Your task to perform on an android device: turn on the 24-hour format for clock Image 0: 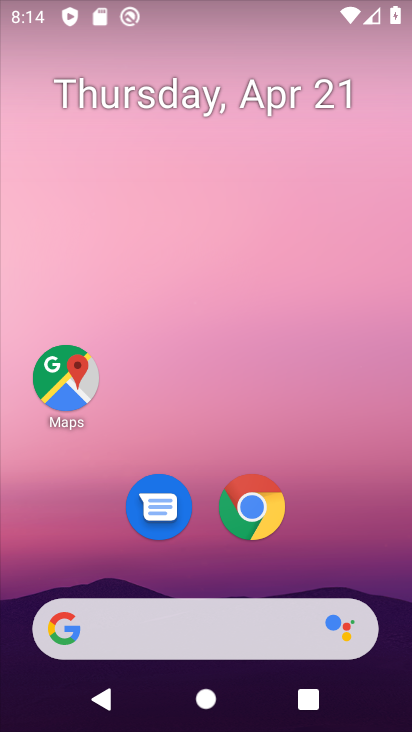
Step 0: drag from (190, 509) to (241, 85)
Your task to perform on an android device: turn on the 24-hour format for clock Image 1: 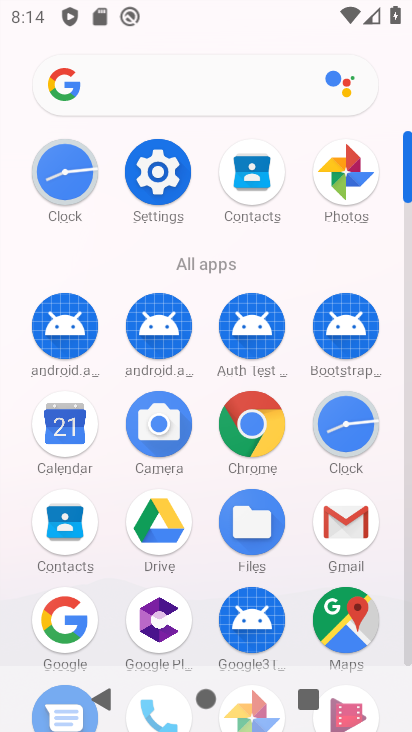
Step 1: click (337, 412)
Your task to perform on an android device: turn on the 24-hour format for clock Image 2: 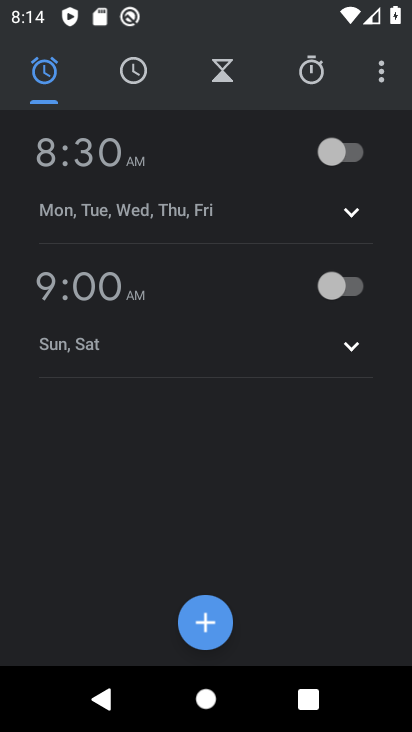
Step 2: click (381, 77)
Your task to perform on an android device: turn on the 24-hour format for clock Image 3: 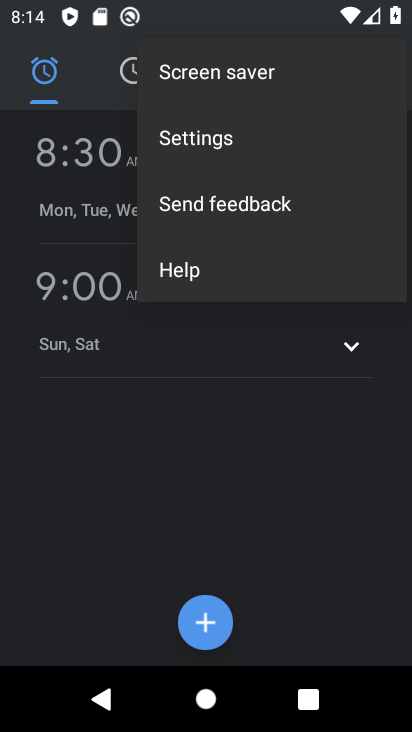
Step 3: click (206, 135)
Your task to perform on an android device: turn on the 24-hour format for clock Image 4: 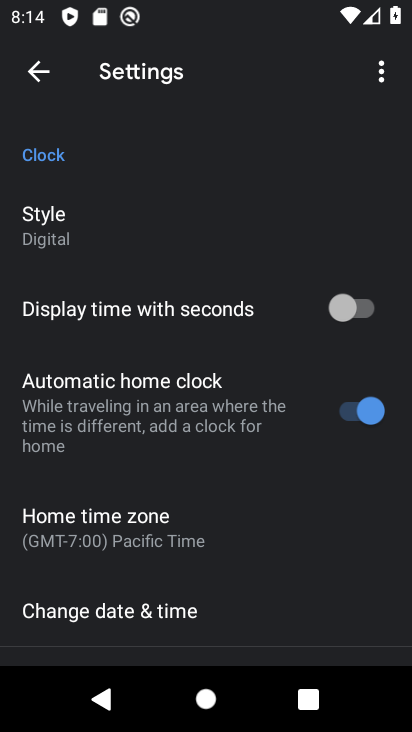
Step 4: drag from (186, 562) to (229, 232)
Your task to perform on an android device: turn on the 24-hour format for clock Image 5: 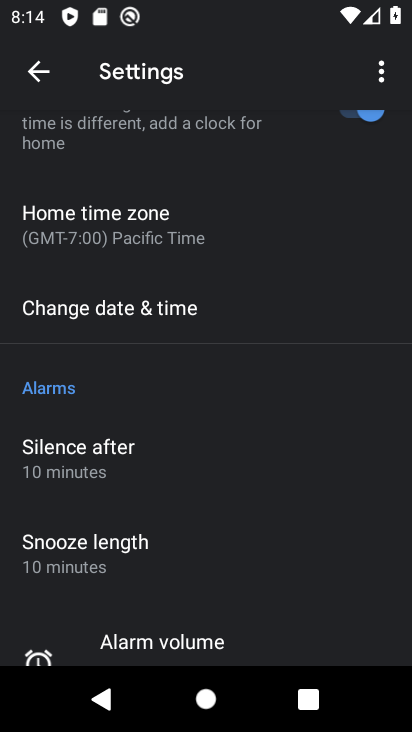
Step 5: click (149, 309)
Your task to perform on an android device: turn on the 24-hour format for clock Image 6: 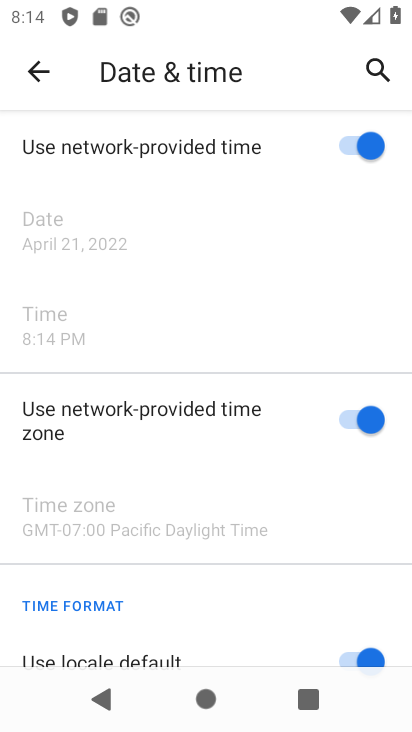
Step 6: drag from (175, 612) to (253, 109)
Your task to perform on an android device: turn on the 24-hour format for clock Image 7: 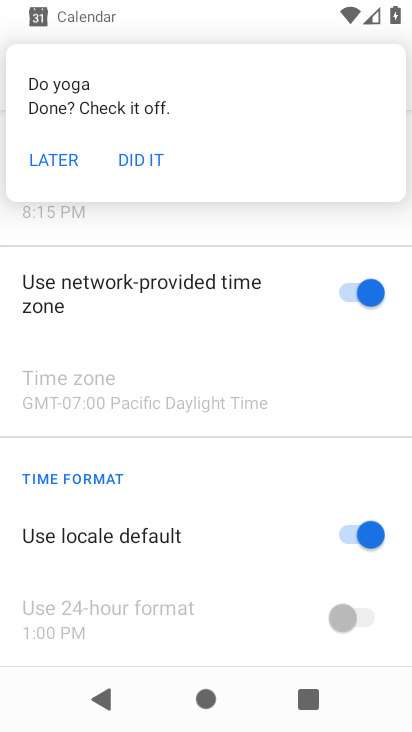
Step 7: click (363, 533)
Your task to perform on an android device: turn on the 24-hour format for clock Image 8: 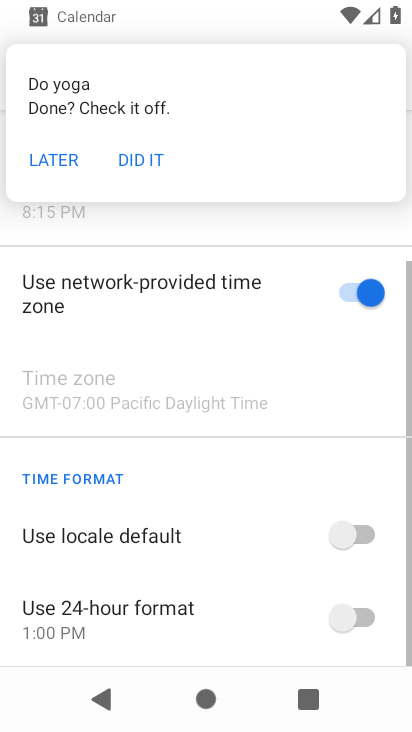
Step 8: click (347, 617)
Your task to perform on an android device: turn on the 24-hour format for clock Image 9: 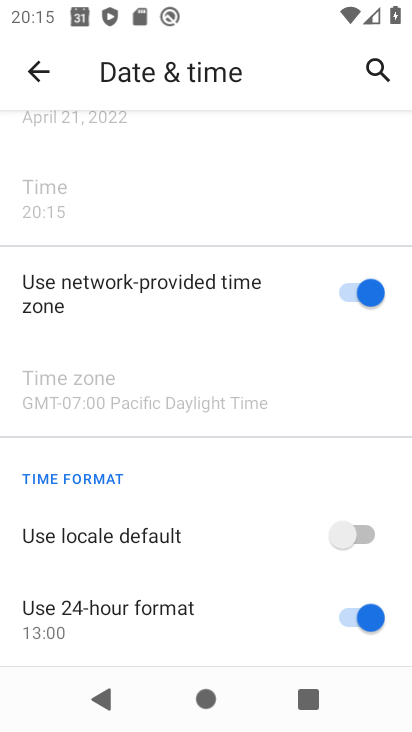
Step 9: task complete